Your task to perform on an android device: allow cookies in the chrome app Image 0: 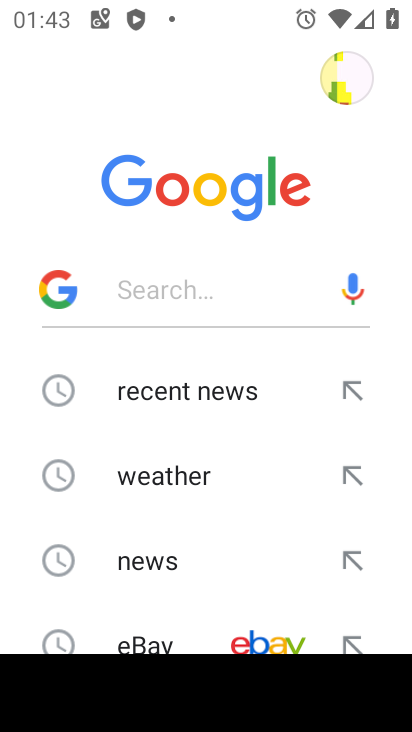
Step 0: press home button
Your task to perform on an android device: allow cookies in the chrome app Image 1: 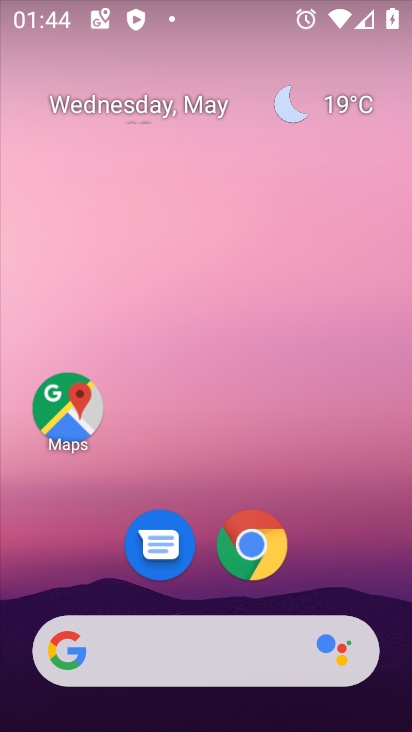
Step 1: click (253, 545)
Your task to perform on an android device: allow cookies in the chrome app Image 2: 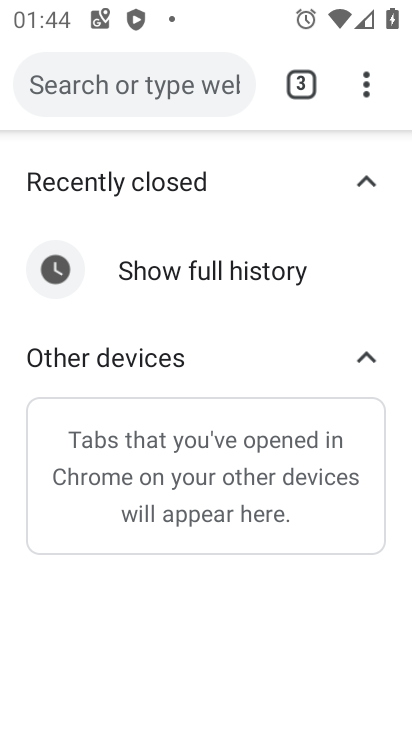
Step 2: click (367, 87)
Your task to perform on an android device: allow cookies in the chrome app Image 3: 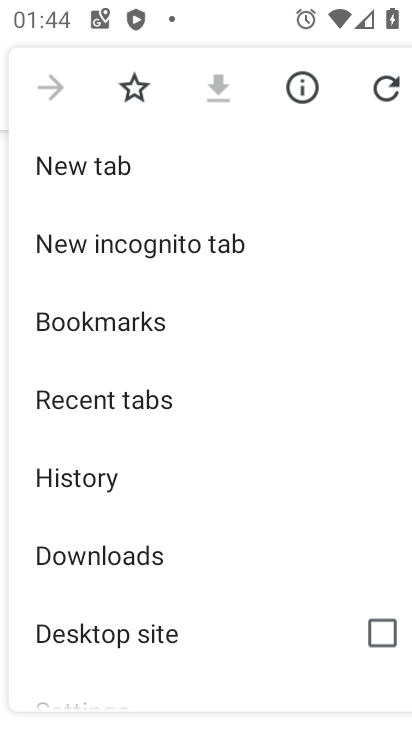
Step 3: drag from (166, 529) to (251, 102)
Your task to perform on an android device: allow cookies in the chrome app Image 4: 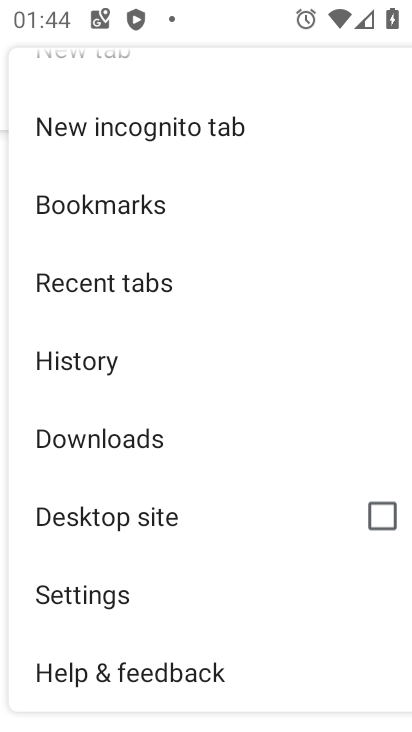
Step 4: click (94, 583)
Your task to perform on an android device: allow cookies in the chrome app Image 5: 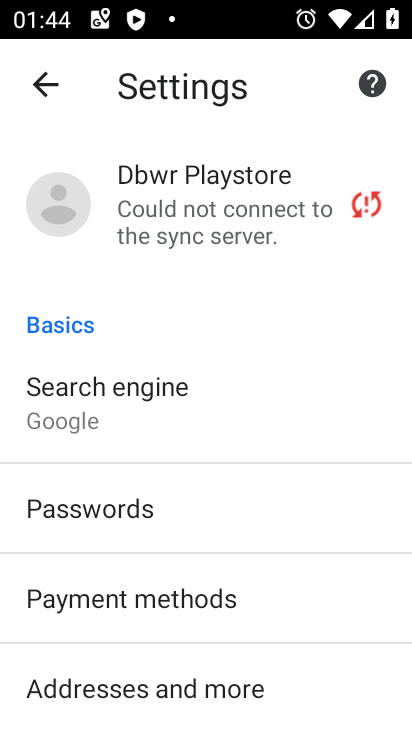
Step 5: drag from (144, 592) to (206, 204)
Your task to perform on an android device: allow cookies in the chrome app Image 6: 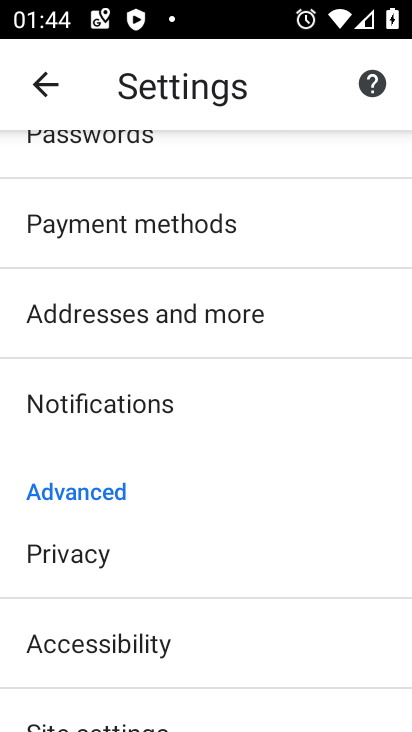
Step 6: drag from (235, 574) to (293, 253)
Your task to perform on an android device: allow cookies in the chrome app Image 7: 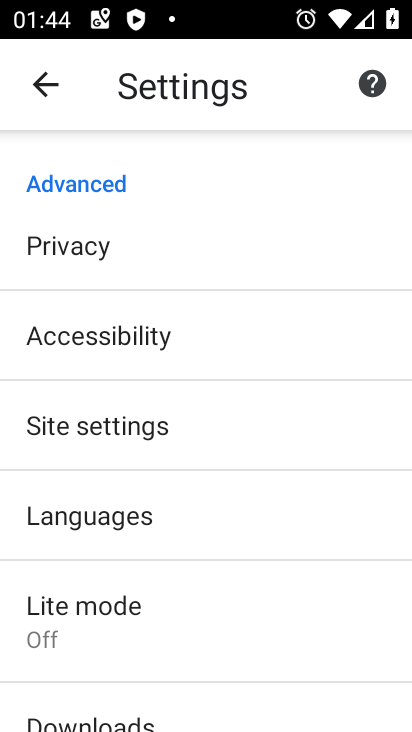
Step 7: click (137, 420)
Your task to perform on an android device: allow cookies in the chrome app Image 8: 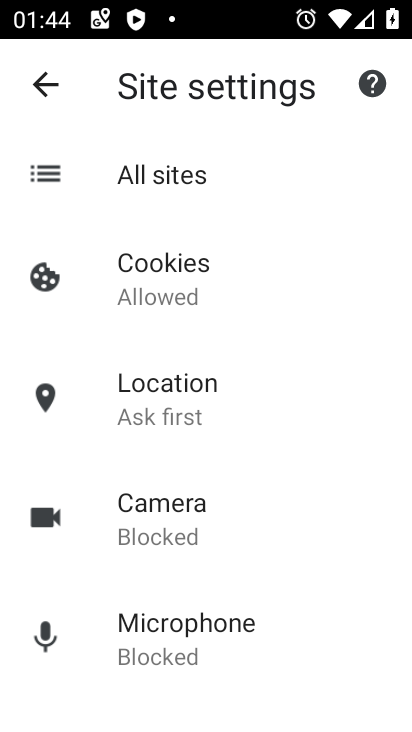
Step 8: drag from (202, 560) to (232, 465)
Your task to perform on an android device: allow cookies in the chrome app Image 9: 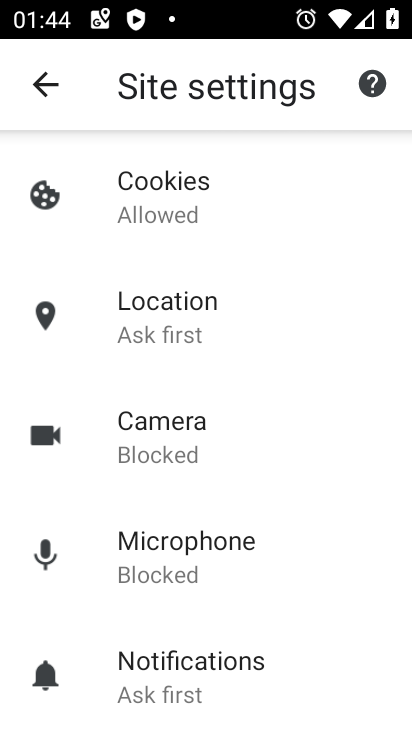
Step 9: click (195, 209)
Your task to perform on an android device: allow cookies in the chrome app Image 10: 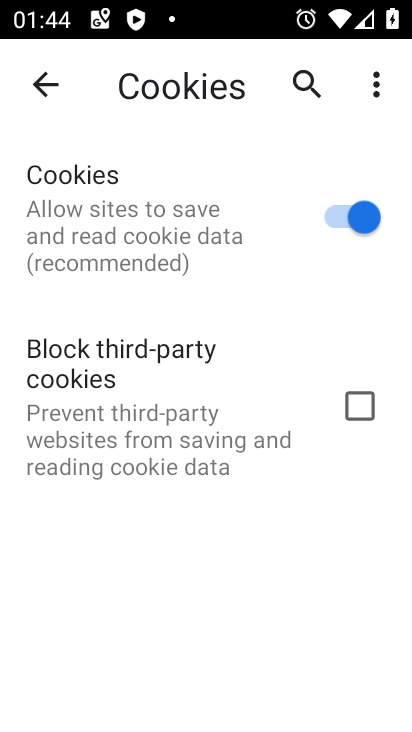
Step 10: task complete